Your task to perform on an android device: Search for sushi restaurants on Maps Image 0: 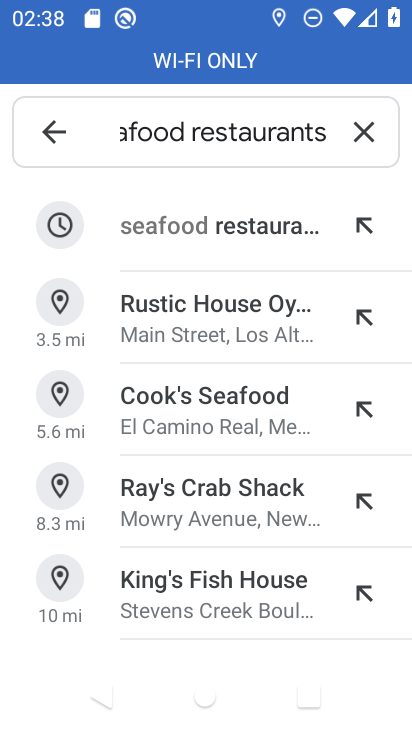
Step 0: click (363, 149)
Your task to perform on an android device: Search for sushi restaurants on Maps Image 1: 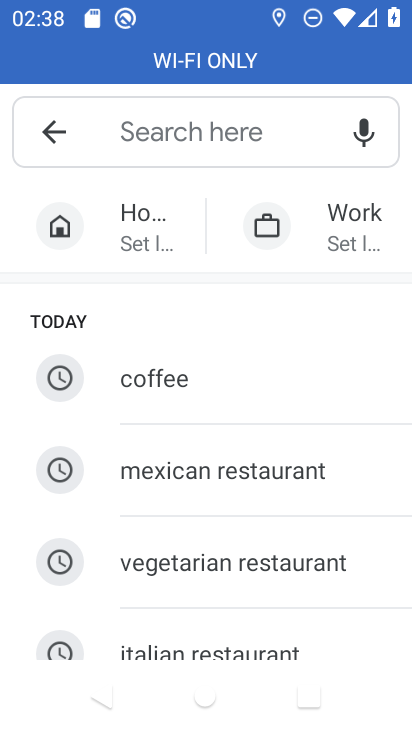
Step 1: drag from (225, 498) to (260, 207)
Your task to perform on an android device: Search for sushi restaurants on Maps Image 2: 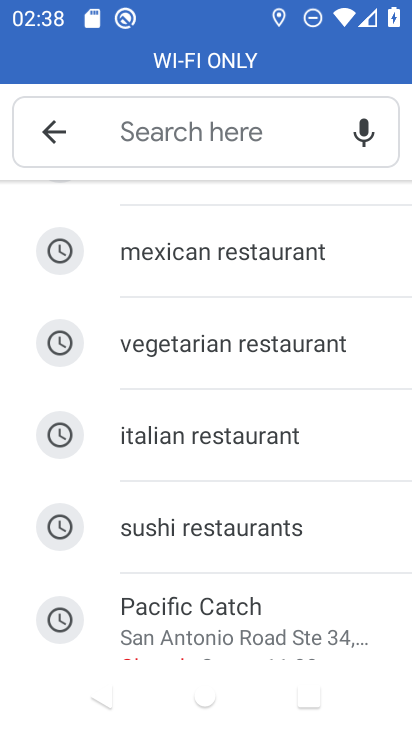
Step 2: click (219, 512)
Your task to perform on an android device: Search for sushi restaurants on Maps Image 3: 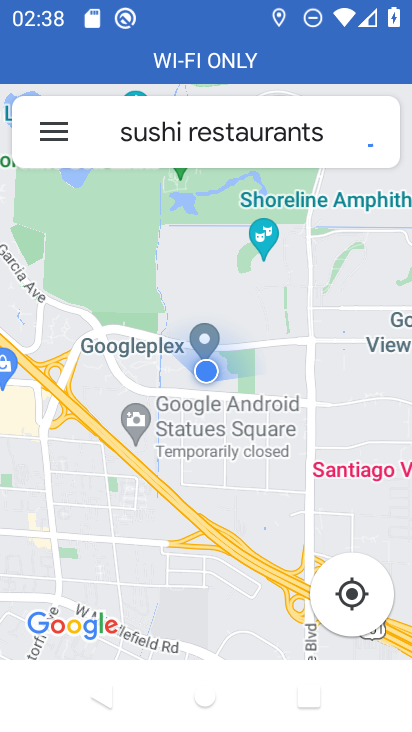
Step 3: task complete